Your task to perform on an android device: Go to Google Image 0: 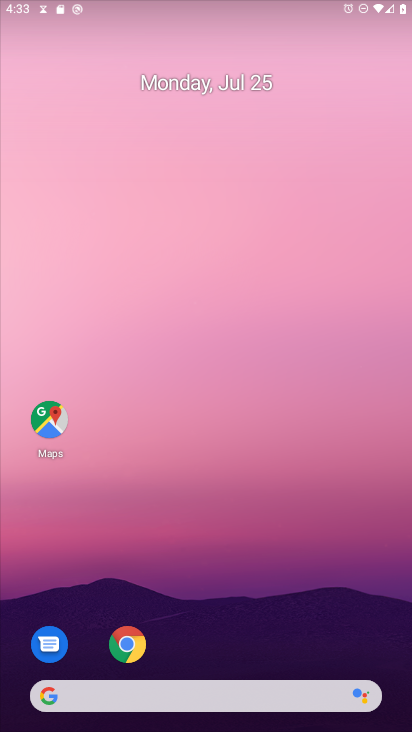
Step 0: press home button
Your task to perform on an android device: Go to Google Image 1: 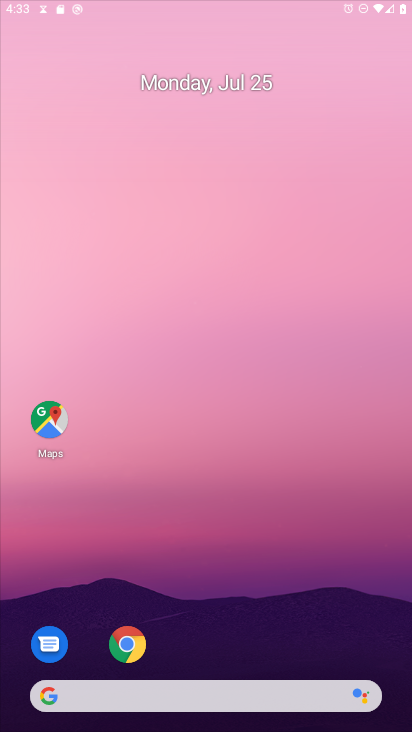
Step 1: press home button
Your task to perform on an android device: Go to Google Image 2: 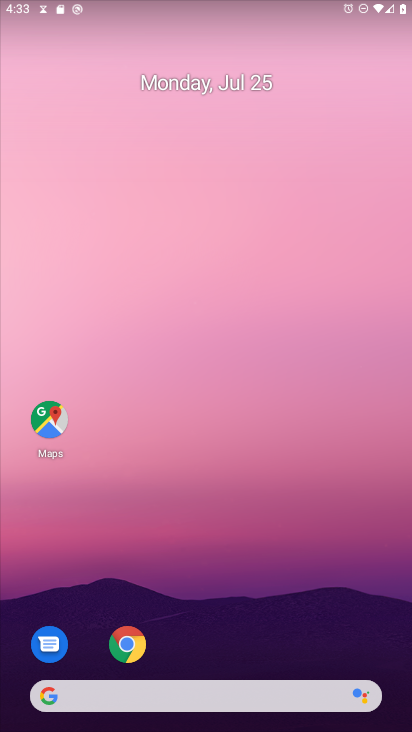
Step 2: drag from (225, 517) to (172, 132)
Your task to perform on an android device: Go to Google Image 3: 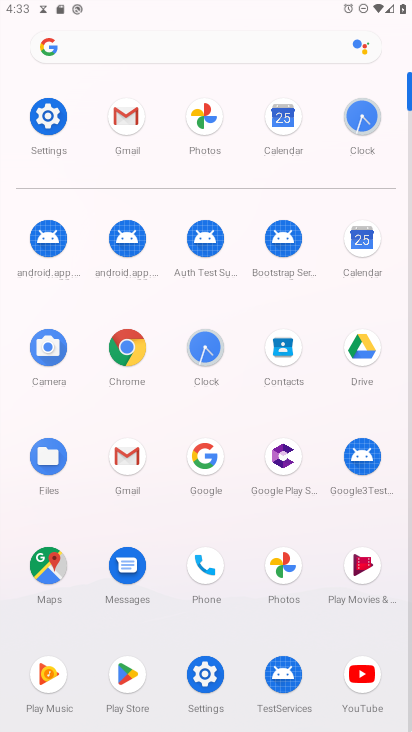
Step 3: click (207, 463)
Your task to perform on an android device: Go to Google Image 4: 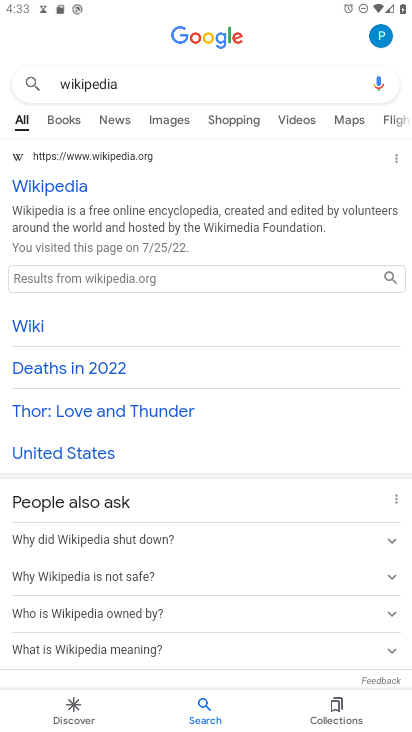
Step 4: click (211, 38)
Your task to perform on an android device: Go to Google Image 5: 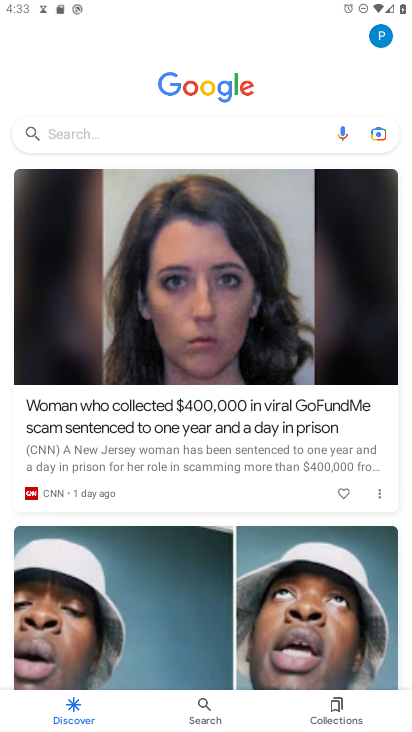
Step 5: task complete